Your task to perform on an android device: toggle wifi Image 0: 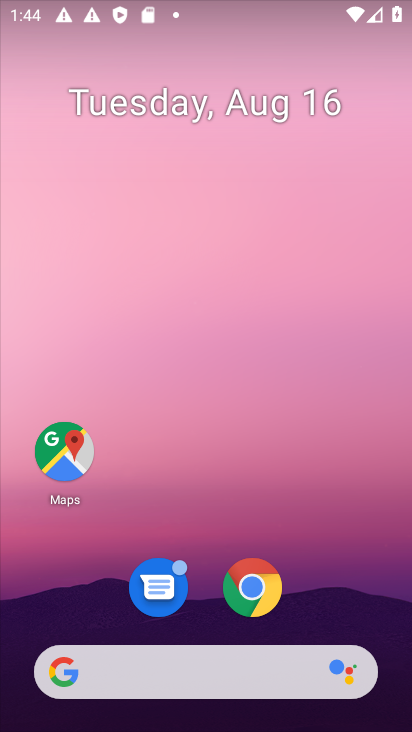
Step 0: drag from (117, 87) to (197, 502)
Your task to perform on an android device: toggle wifi Image 1: 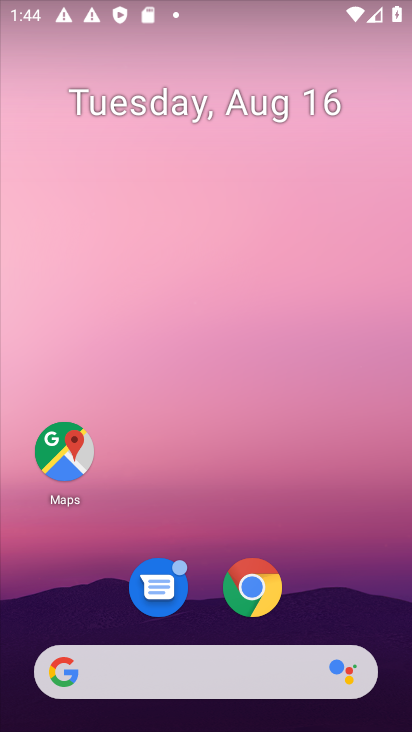
Step 1: drag from (191, 4) to (226, 512)
Your task to perform on an android device: toggle wifi Image 2: 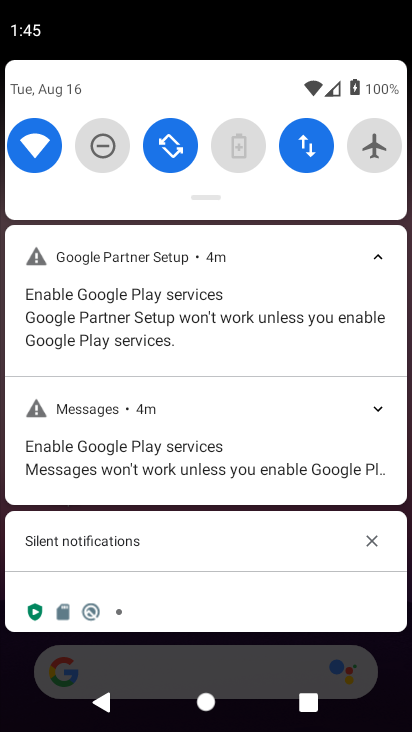
Step 2: click (22, 148)
Your task to perform on an android device: toggle wifi Image 3: 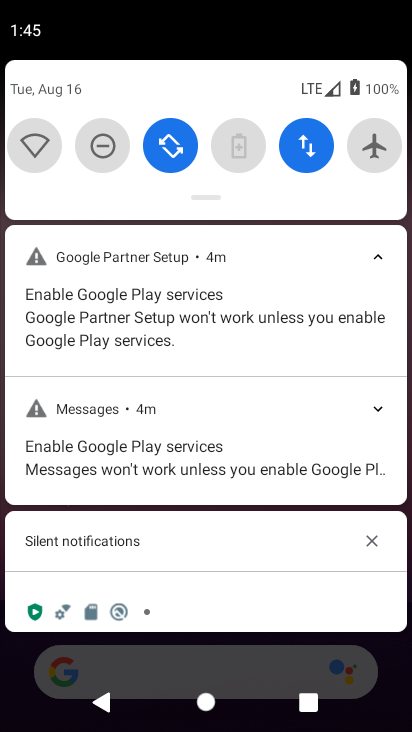
Step 3: task complete